Your task to perform on an android device: turn off wifi Image 0: 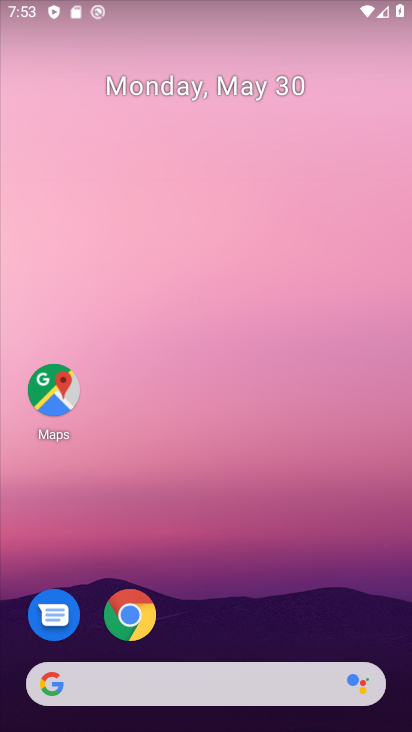
Step 0: drag from (189, 35) to (132, 302)
Your task to perform on an android device: turn off wifi Image 1: 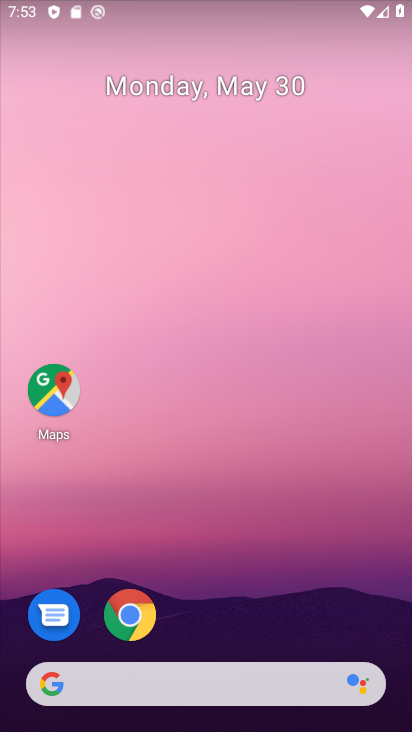
Step 1: drag from (183, 11) to (139, 321)
Your task to perform on an android device: turn off wifi Image 2: 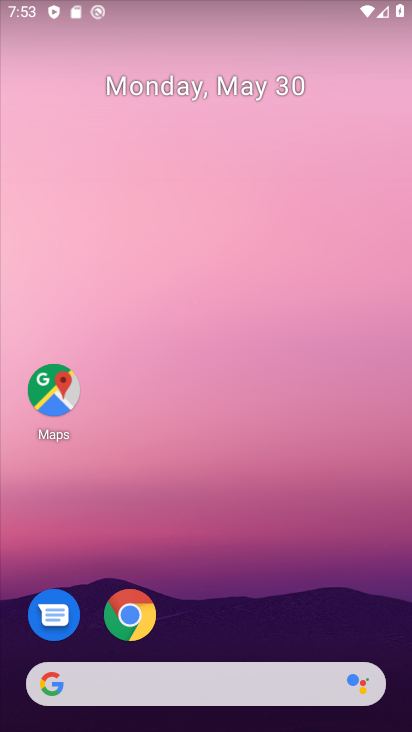
Step 2: drag from (221, 12) to (119, 578)
Your task to perform on an android device: turn off wifi Image 3: 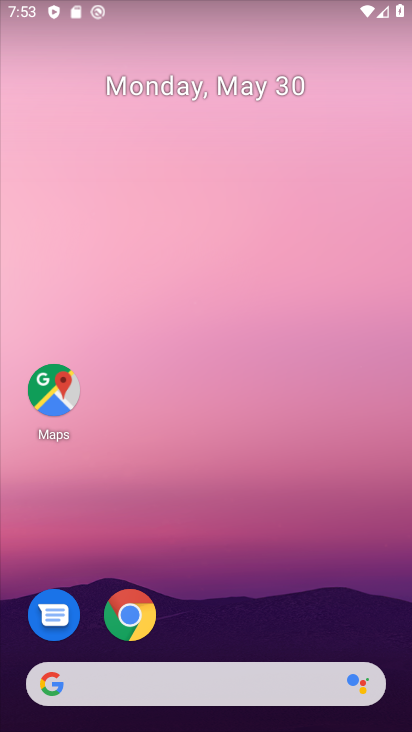
Step 3: drag from (177, 7) to (47, 518)
Your task to perform on an android device: turn off wifi Image 4: 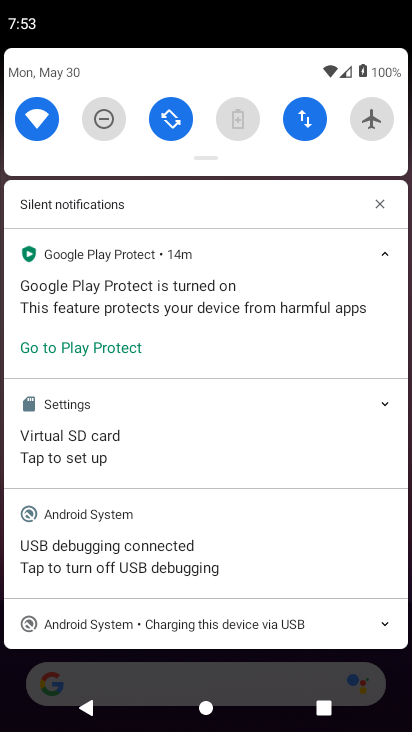
Step 4: click (26, 120)
Your task to perform on an android device: turn off wifi Image 5: 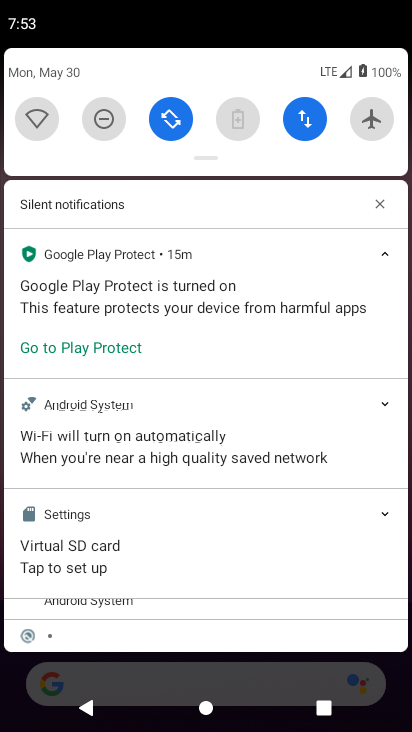
Step 5: task complete